Your task to perform on an android device: turn off translation in the chrome app Image 0: 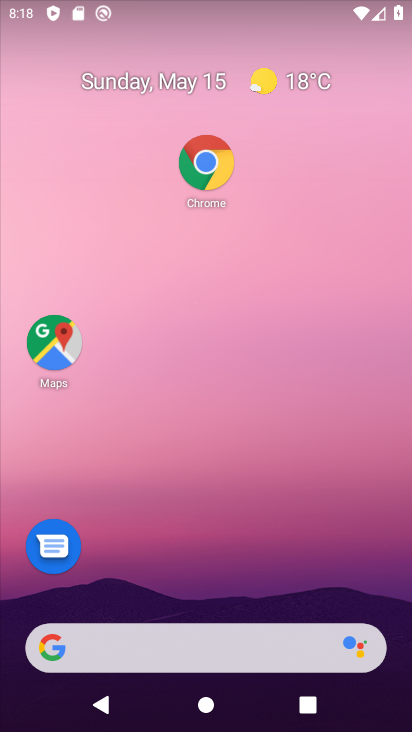
Step 0: drag from (287, 560) to (351, 244)
Your task to perform on an android device: turn off translation in the chrome app Image 1: 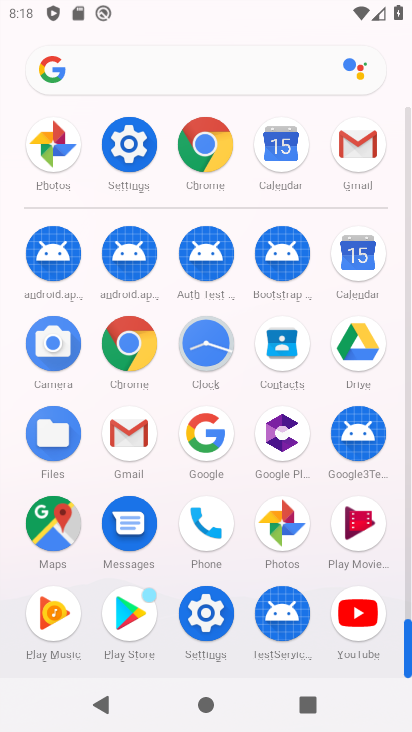
Step 1: click (131, 134)
Your task to perform on an android device: turn off translation in the chrome app Image 2: 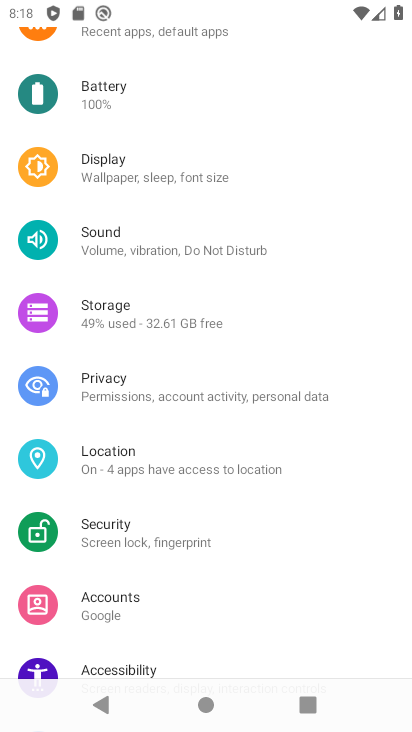
Step 2: drag from (177, 251) to (188, 435)
Your task to perform on an android device: turn off translation in the chrome app Image 3: 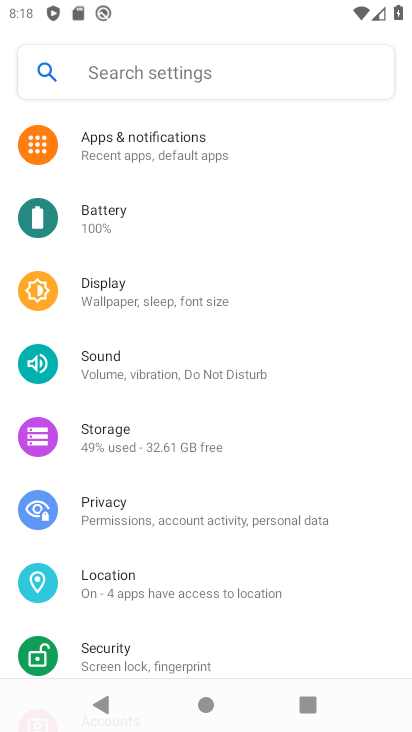
Step 3: press home button
Your task to perform on an android device: turn off translation in the chrome app Image 4: 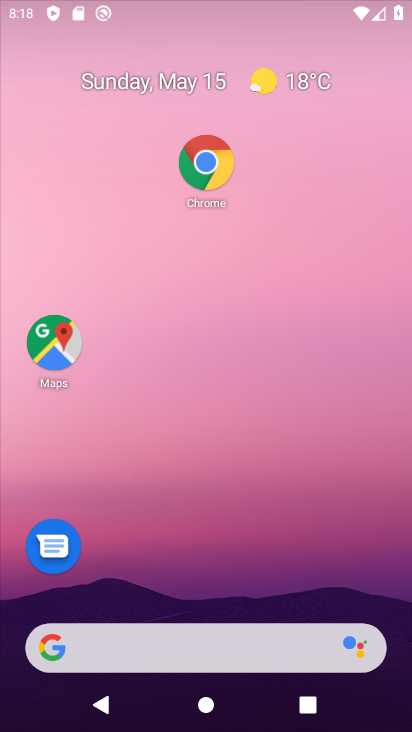
Step 4: drag from (251, 548) to (314, 216)
Your task to perform on an android device: turn off translation in the chrome app Image 5: 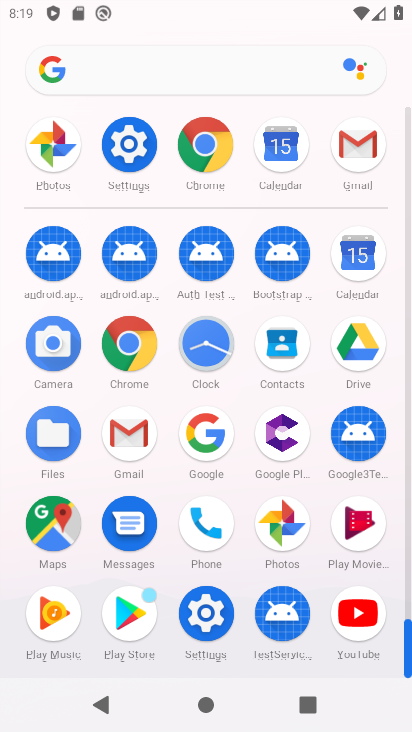
Step 5: click (123, 338)
Your task to perform on an android device: turn off translation in the chrome app Image 6: 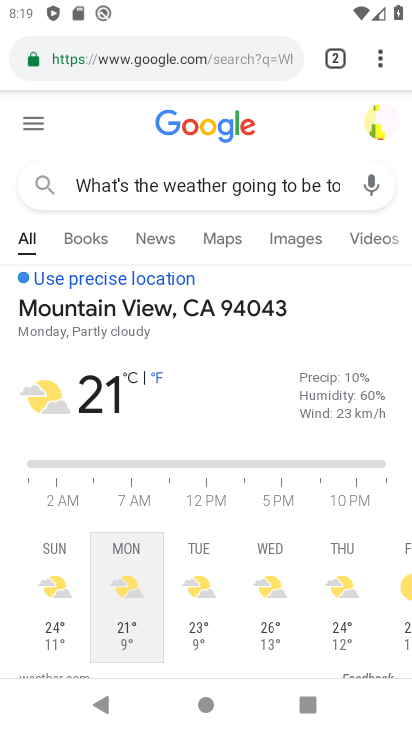
Step 6: click (370, 52)
Your task to perform on an android device: turn off translation in the chrome app Image 7: 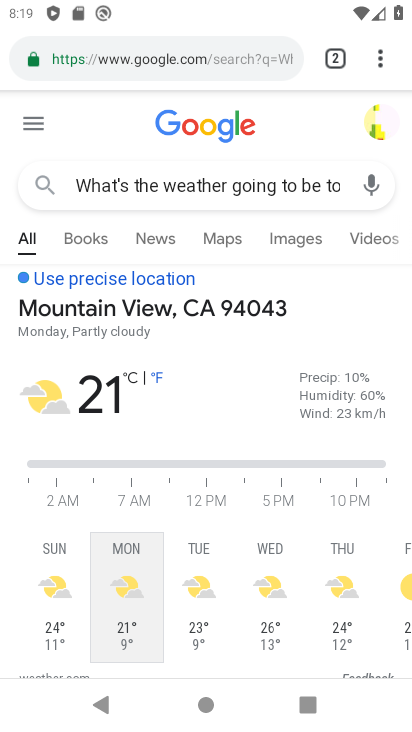
Step 7: click (359, 53)
Your task to perform on an android device: turn off translation in the chrome app Image 8: 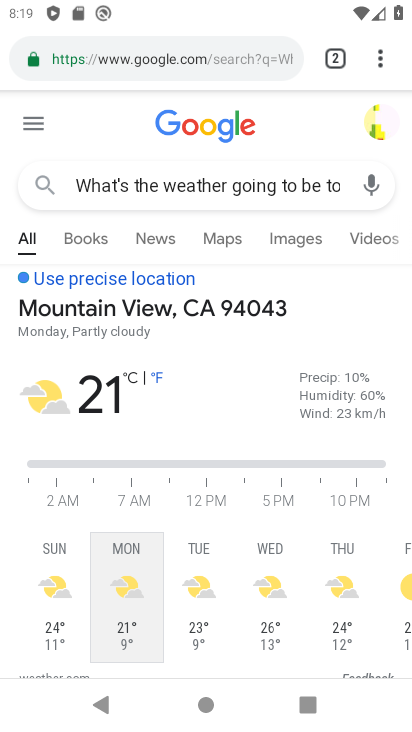
Step 8: click (392, 53)
Your task to perform on an android device: turn off translation in the chrome app Image 9: 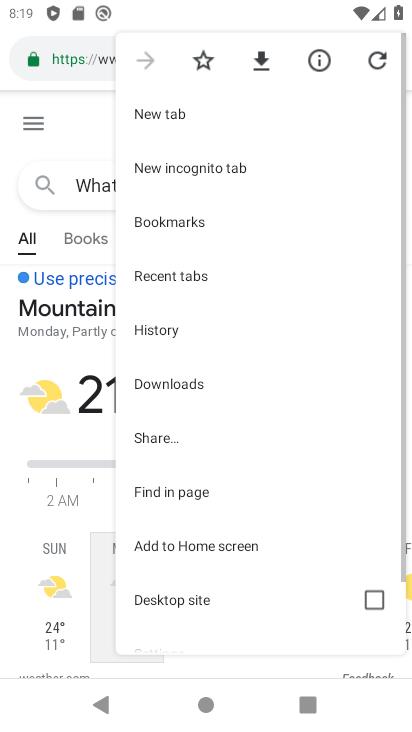
Step 9: drag from (185, 525) to (260, 213)
Your task to perform on an android device: turn off translation in the chrome app Image 10: 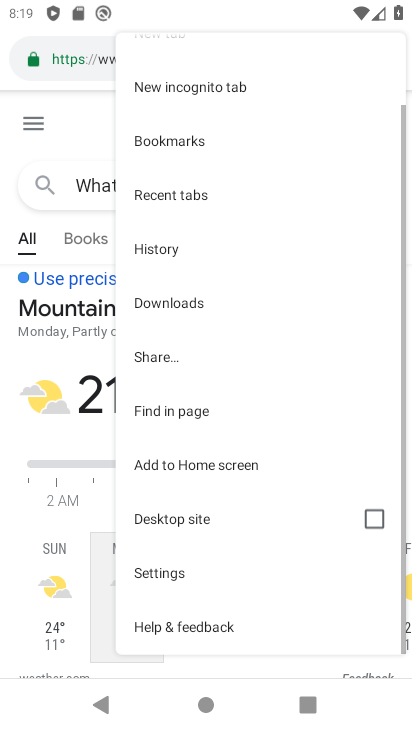
Step 10: click (205, 578)
Your task to perform on an android device: turn off translation in the chrome app Image 11: 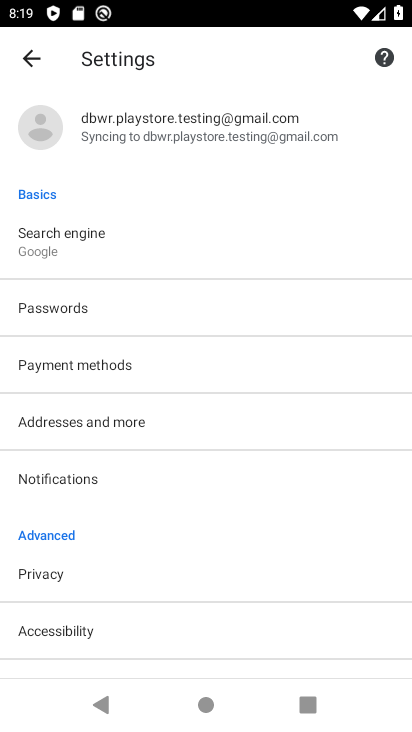
Step 11: drag from (114, 574) to (230, 271)
Your task to perform on an android device: turn off translation in the chrome app Image 12: 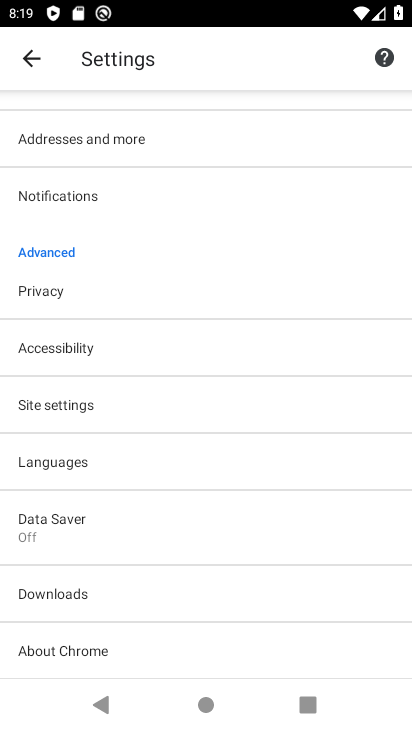
Step 12: click (81, 461)
Your task to perform on an android device: turn off translation in the chrome app Image 13: 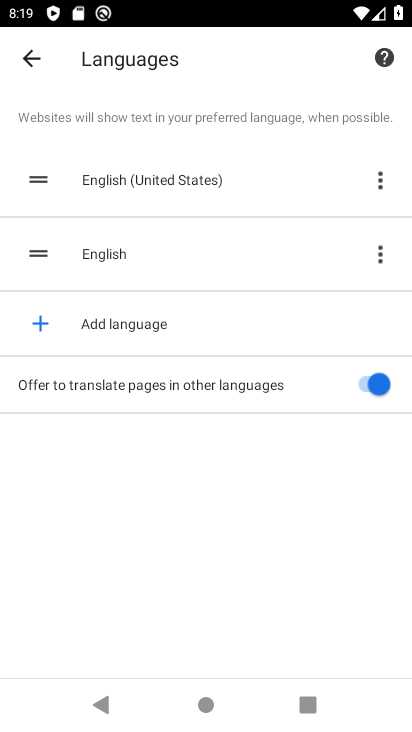
Step 13: click (356, 383)
Your task to perform on an android device: turn off translation in the chrome app Image 14: 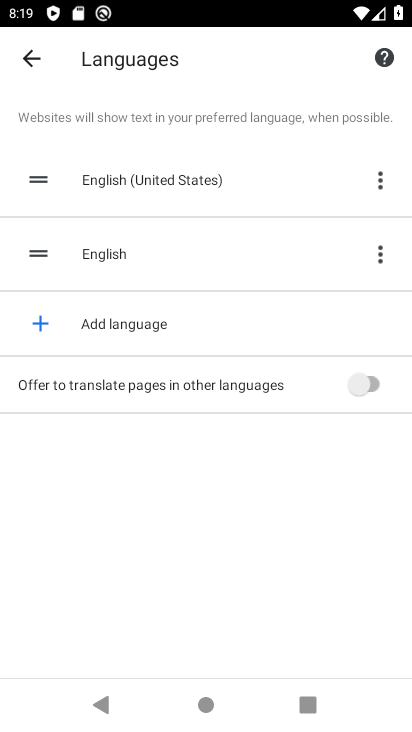
Step 14: task complete